Your task to perform on an android device: snooze an email in the gmail app Image 0: 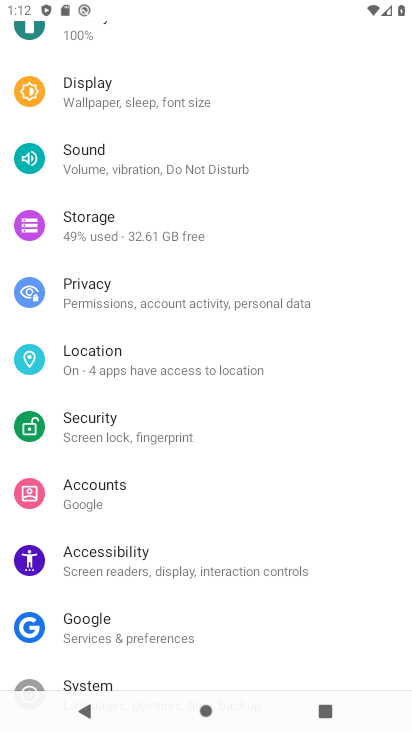
Step 0: press home button
Your task to perform on an android device: snooze an email in the gmail app Image 1: 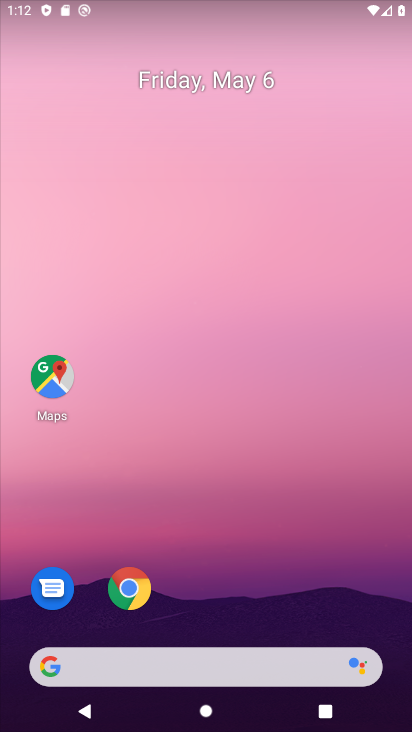
Step 1: drag from (371, 594) to (311, 129)
Your task to perform on an android device: snooze an email in the gmail app Image 2: 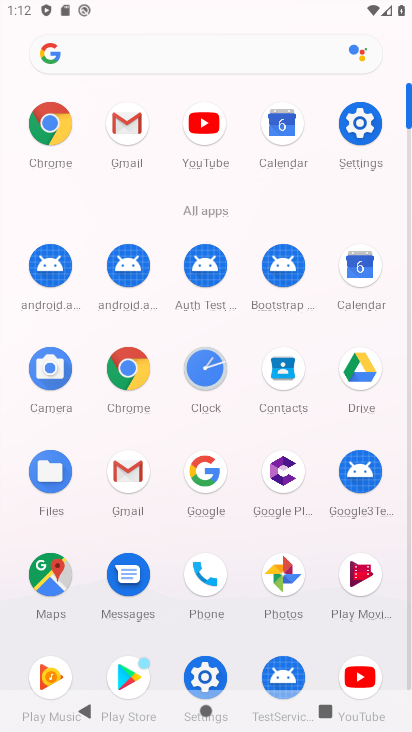
Step 2: click (141, 478)
Your task to perform on an android device: snooze an email in the gmail app Image 3: 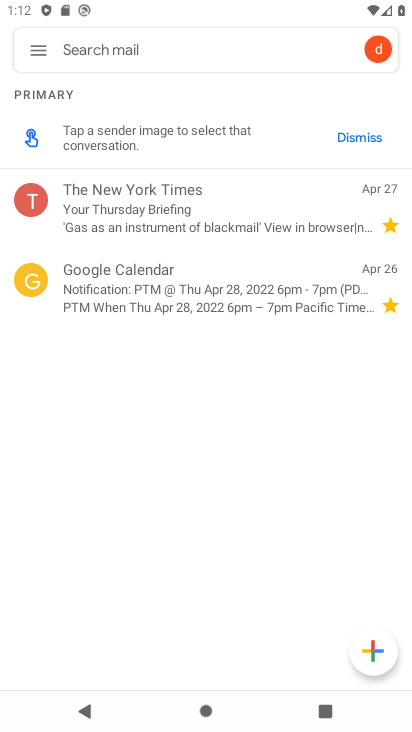
Step 3: click (40, 46)
Your task to perform on an android device: snooze an email in the gmail app Image 4: 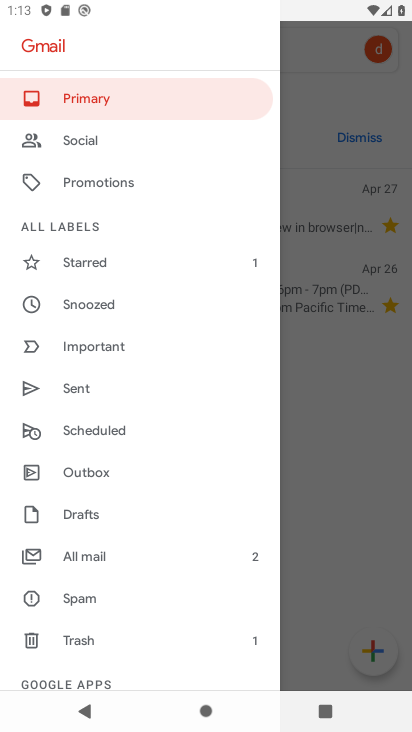
Step 4: click (146, 307)
Your task to perform on an android device: snooze an email in the gmail app Image 5: 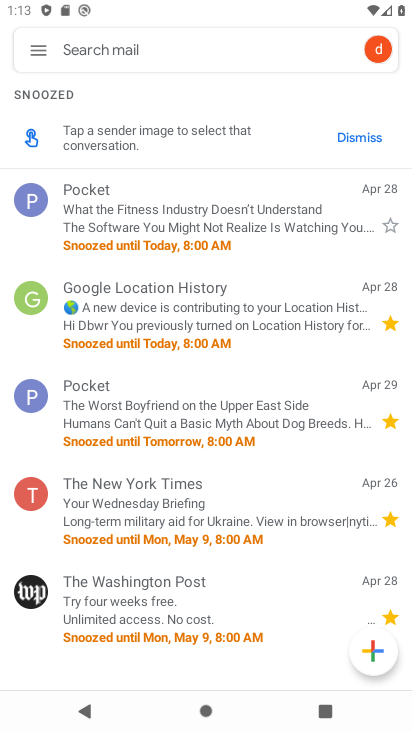
Step 5: task complete